Your task to perform on an android device: check storage Image 0: 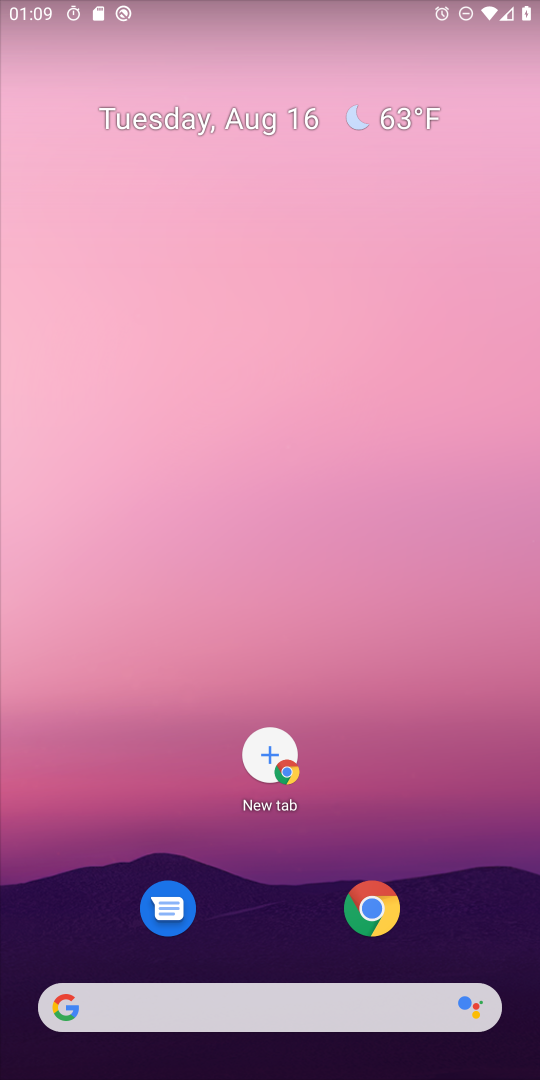
Step 0: drag from (253, 926) to (301, 81)
Your task to perform on an android device: check storage Image 1: 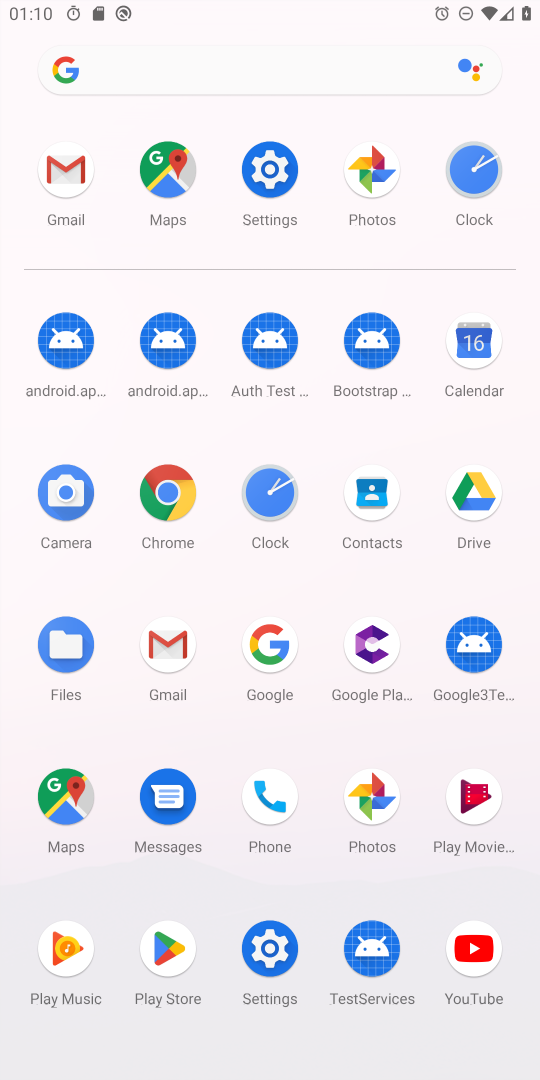
Step 1: click (268, 197)
Your task to perform on an android device: check storage Image 2: 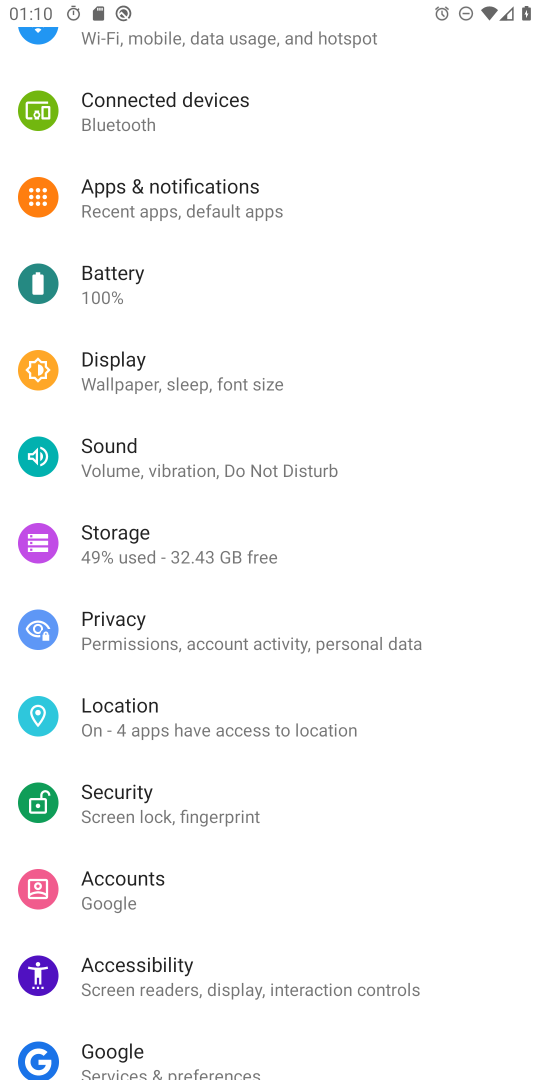
Step 2: click (200, 535)
Your task to perform on an android device: check storage Image 3: 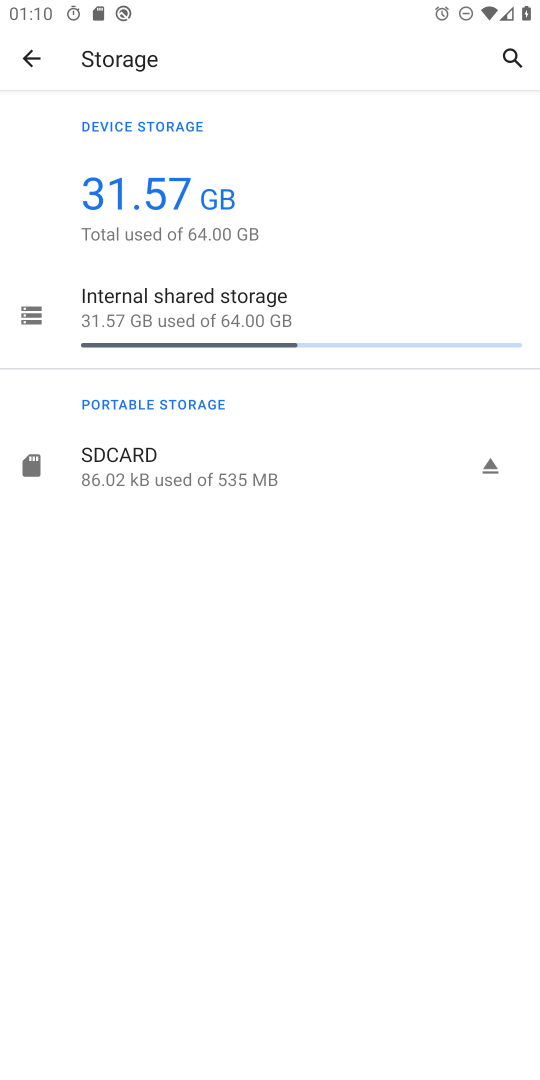
Step 3: task complete